Your task to perform on an android device: Go to settings Image 0: 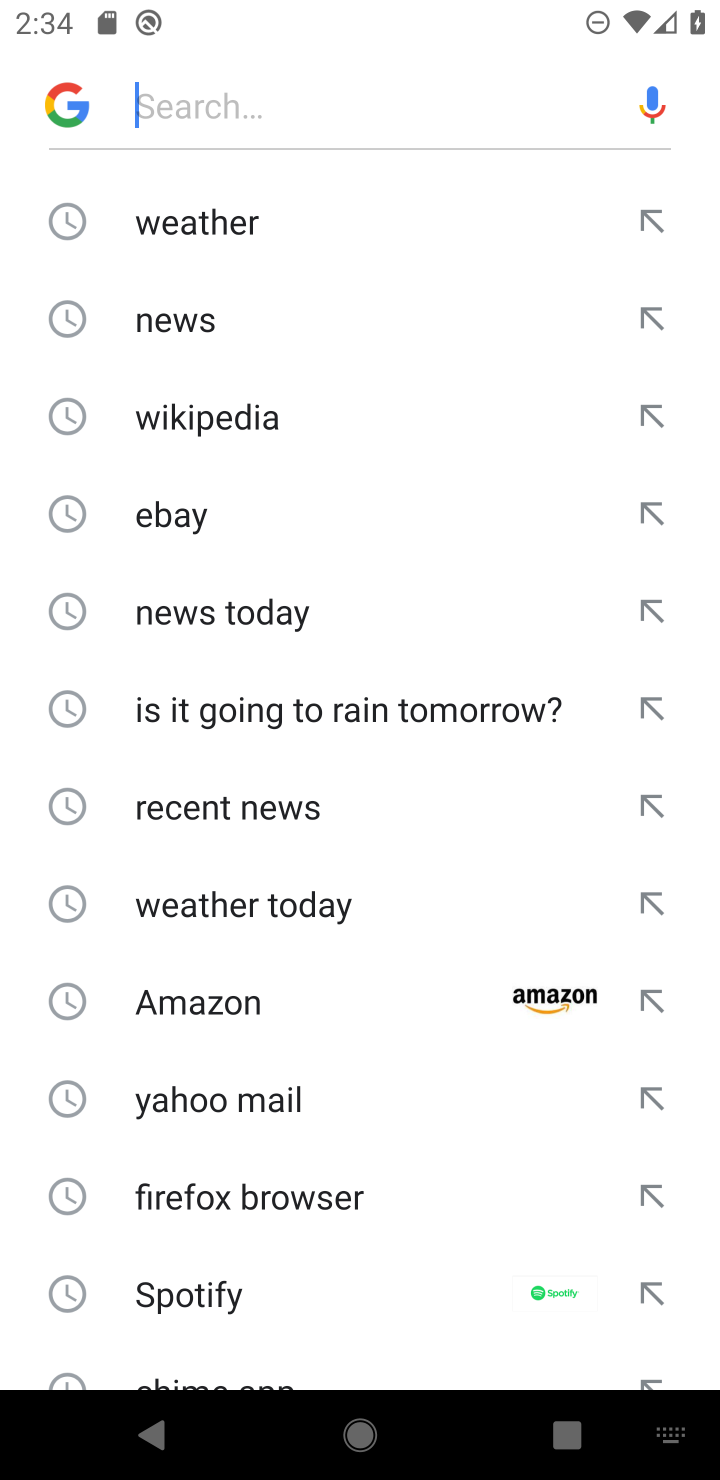
Step 0: press home button
Your task to perform on an android device: Go to settings Image 1: 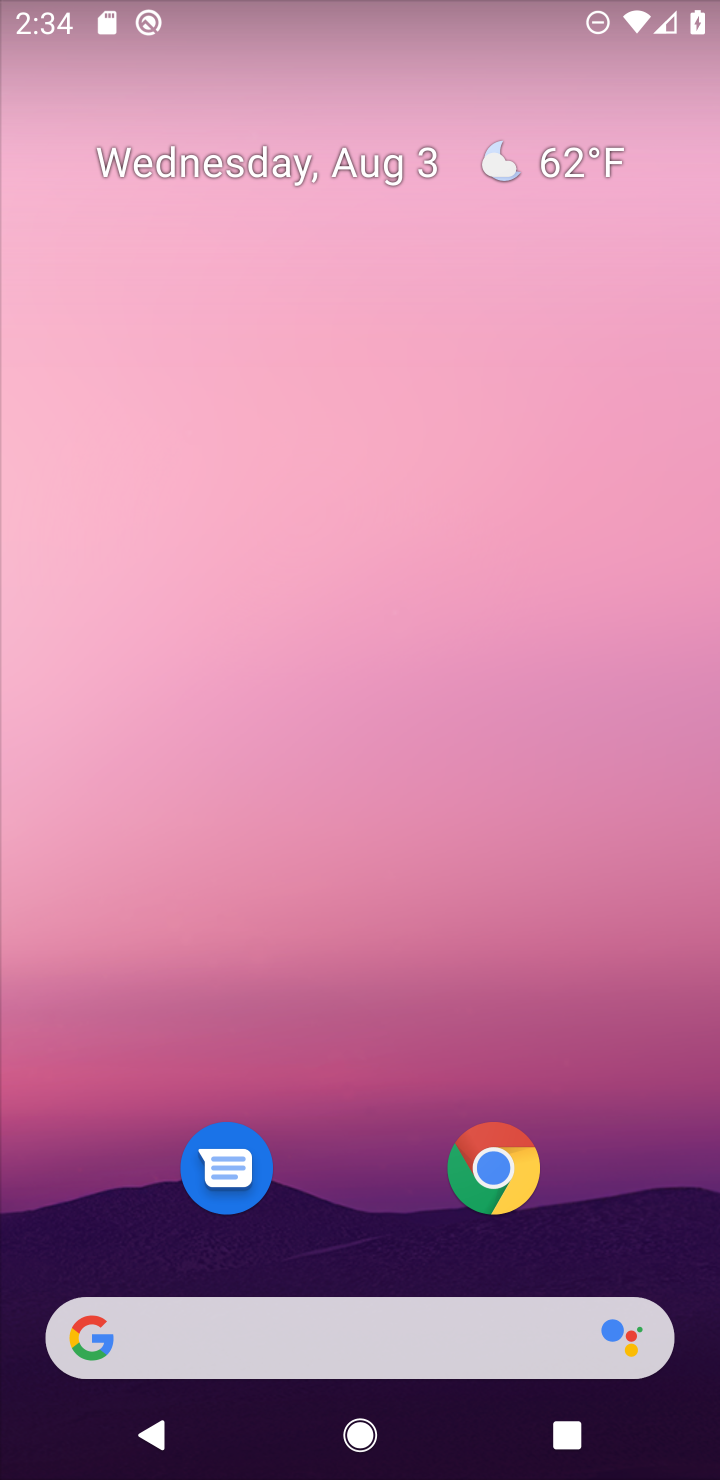
Step 1: drag from (648, 1229) to (599, 394)
Your task to perform on an android device: Go to settings Image 2: 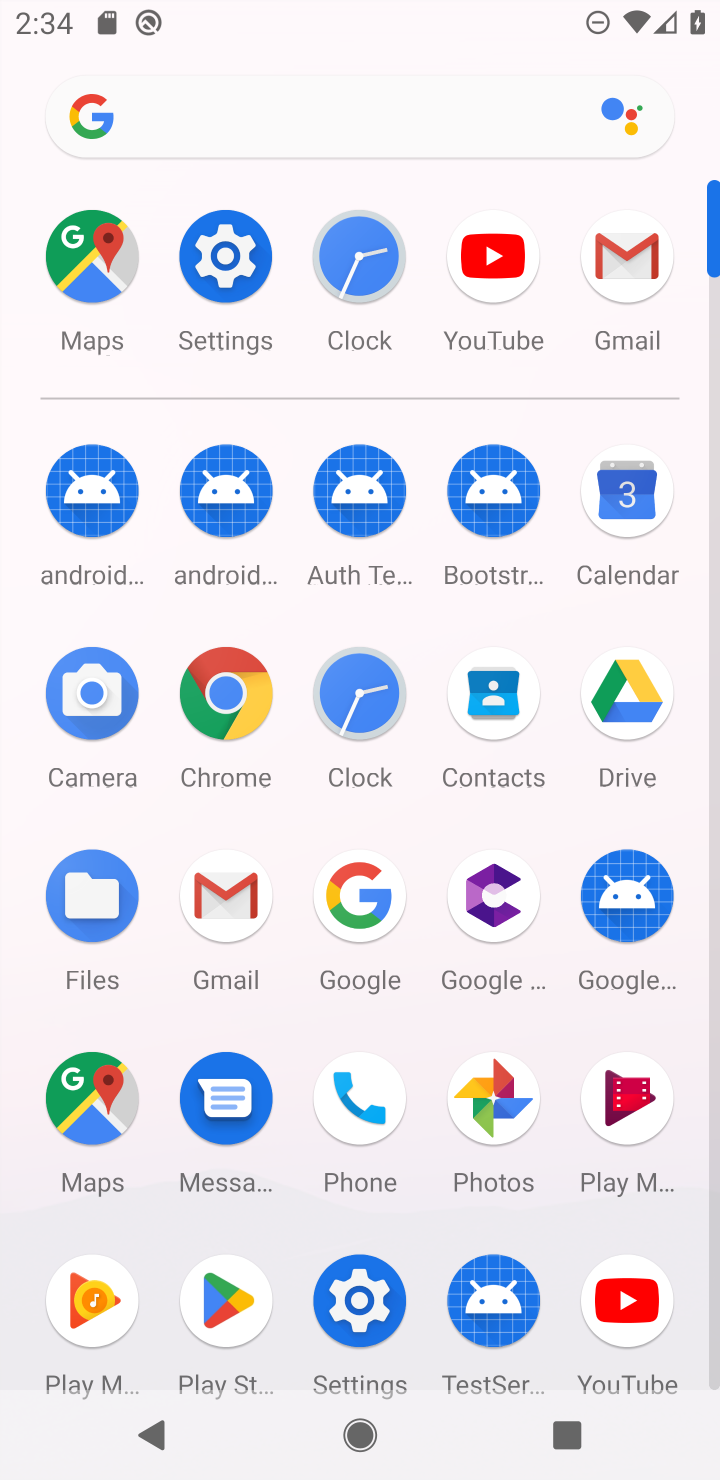
Step 2: click (354, 1304)
Your task to perform on an android device: Go to settings Image 3: 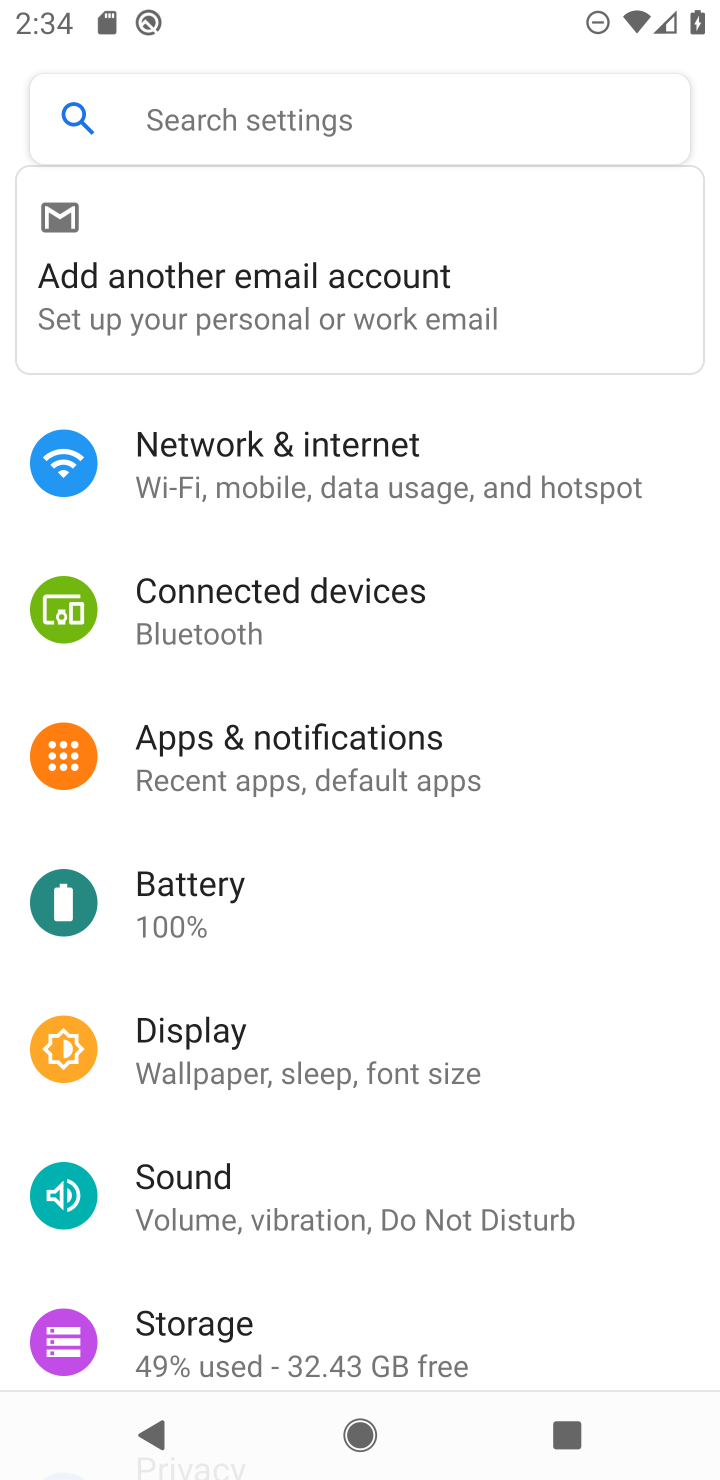
Step 3: task complete